Your task to perform on an android device: Search for good Indian restaurants Image 0: 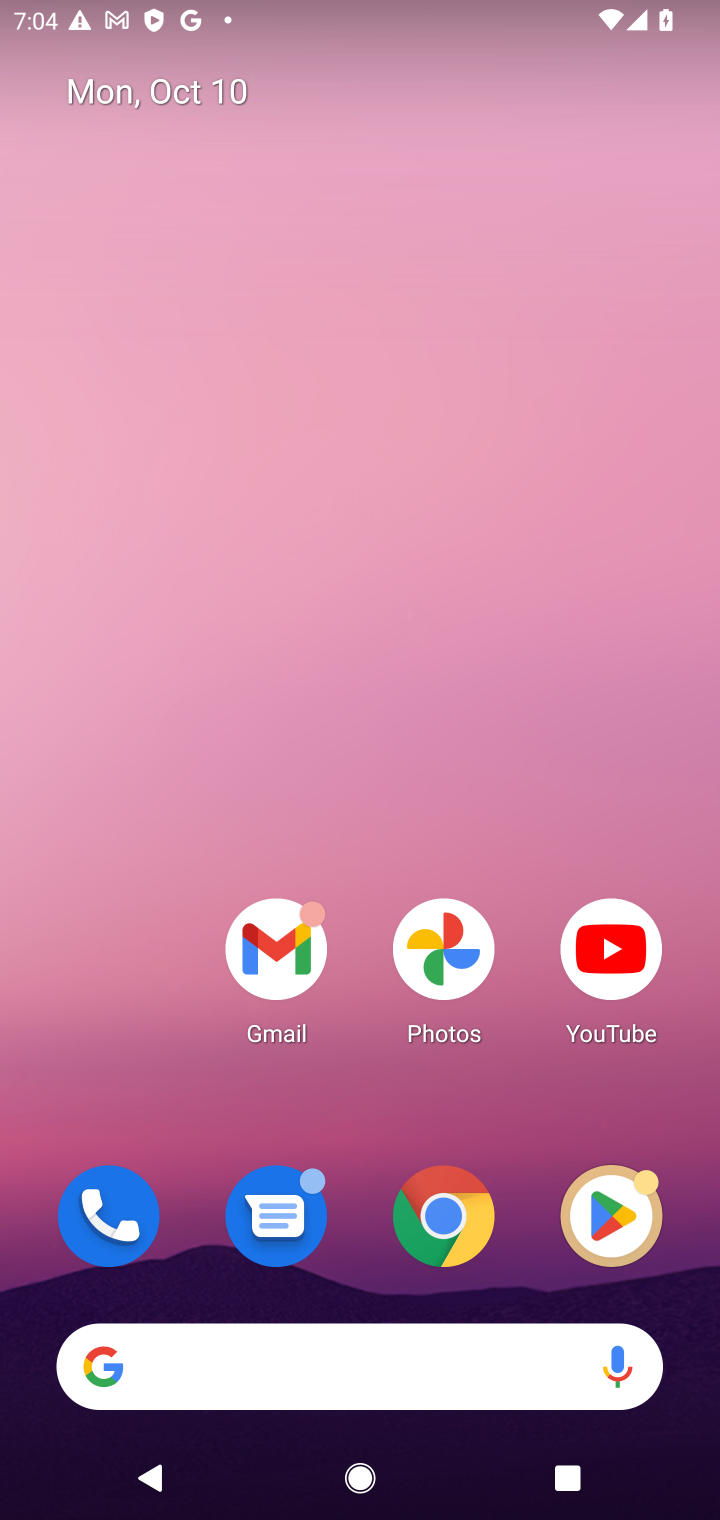
Step 0: drag from (318, 1340) to (348, 308)
Your task to perform on an android device: Search for good Indian restaurants Image 1: 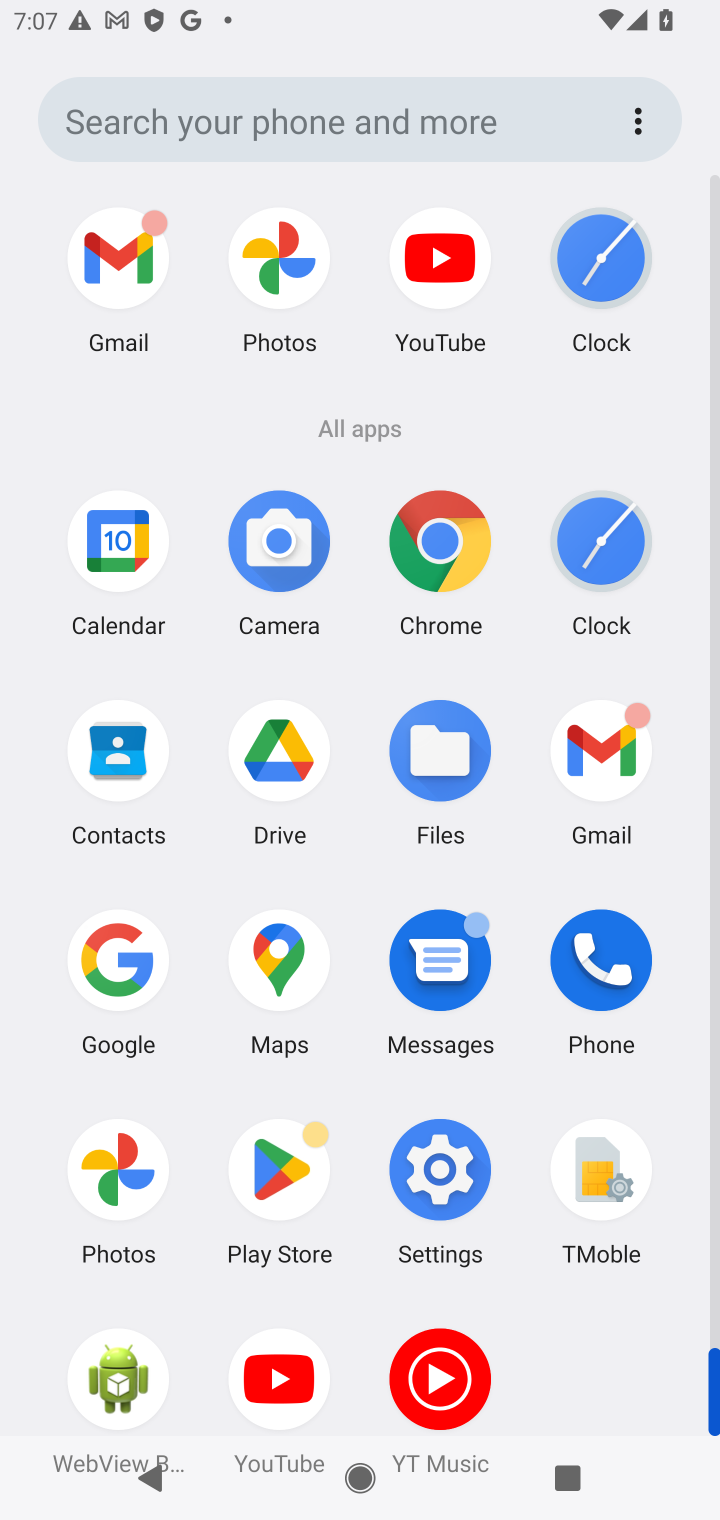
Step 1: click (96, 961)
Your task to perform on an android device: Search for good Indian restaurants Image 2: 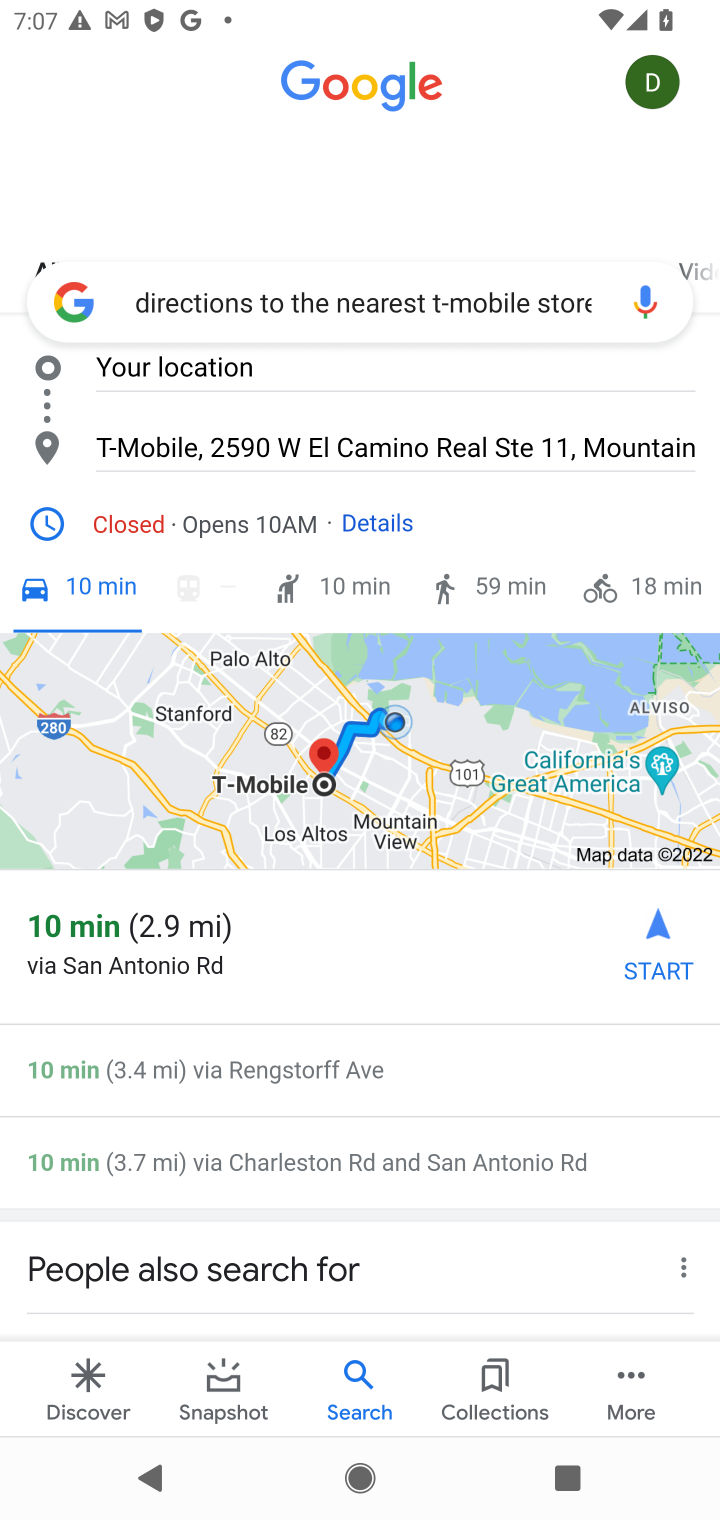
Step 2: click (290, 307)
Your task to perform on an android device: Search for good Indian restaurants Image 3: 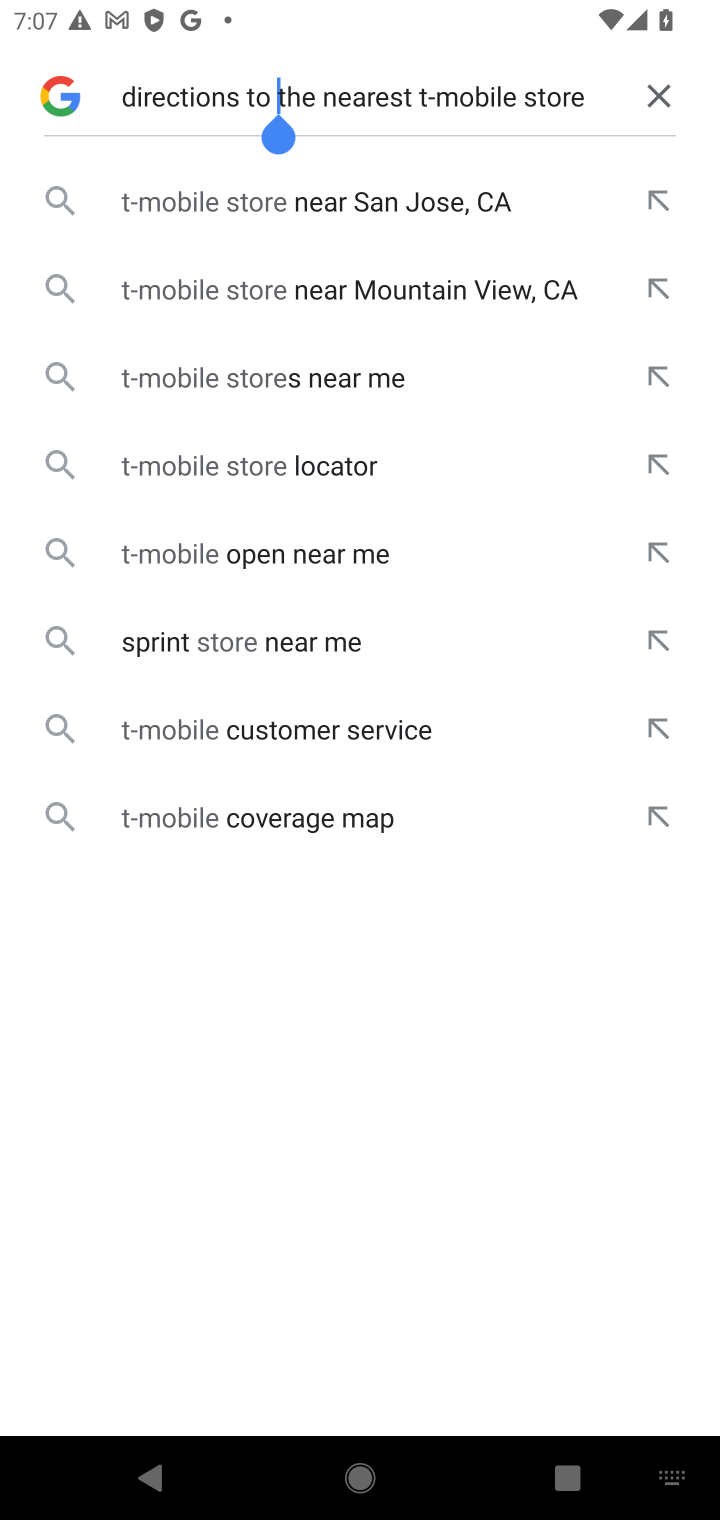
Step 3: click (658, 101)
Your task to perform on an android device: Search for good Indian restaurants Image 4: 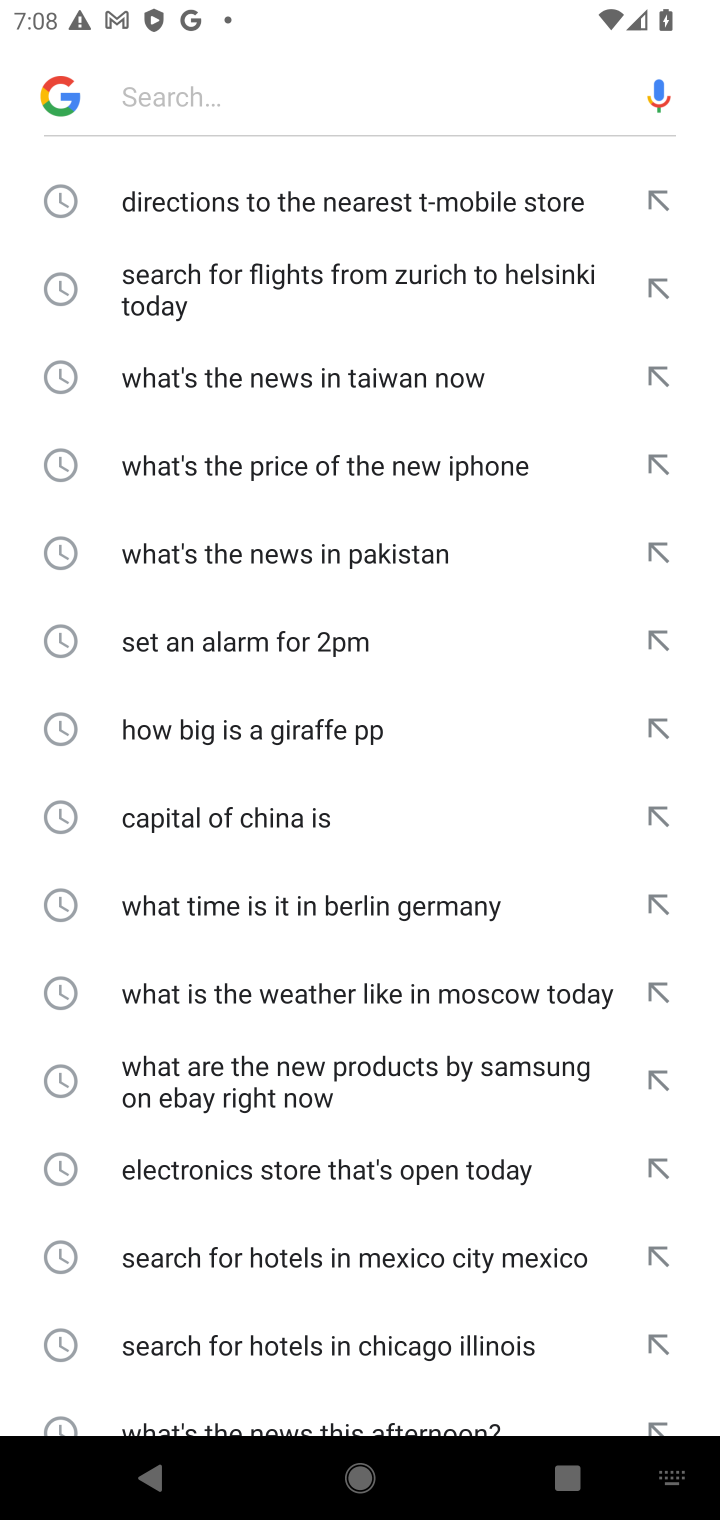
Step 4: type "Search for good Indian restaurants"
Your task to perform on an android device: Search for good Indian restaurants Image 5: 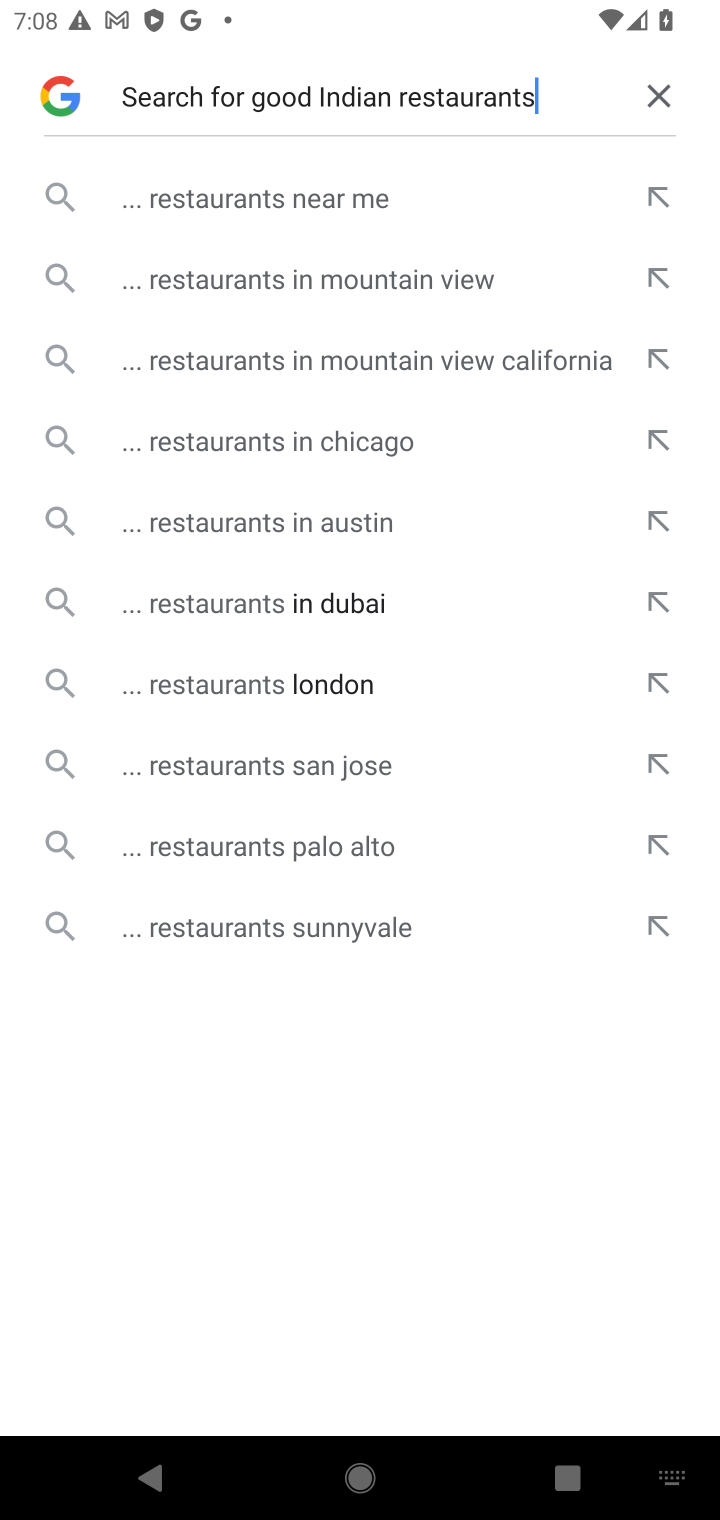
Step 5: click (248, 200)
Your task to perform on an android device: Search for good Indian restaurants Image 6: 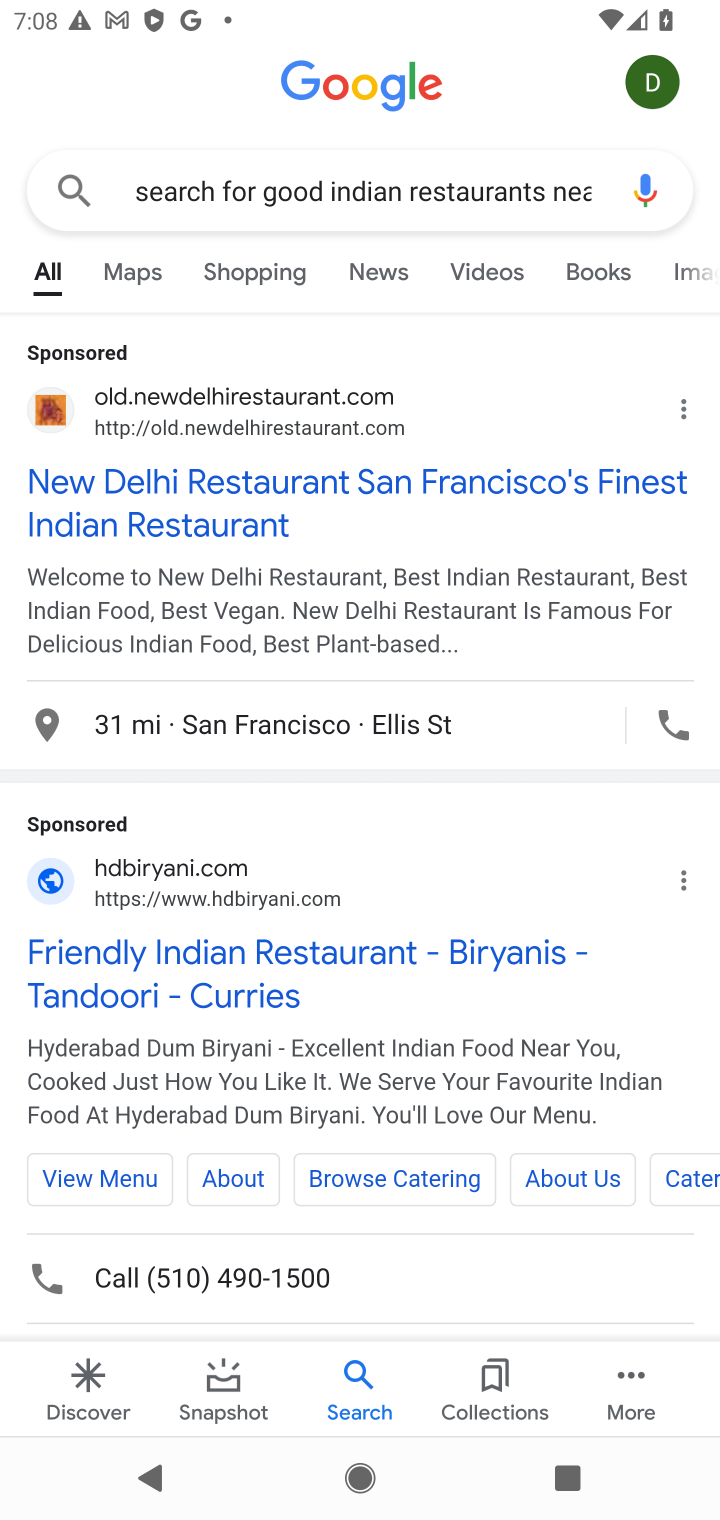
Step 6: click (314, 538)
Your task to perform on an android device: Search for good Indian restaurants Image 7: 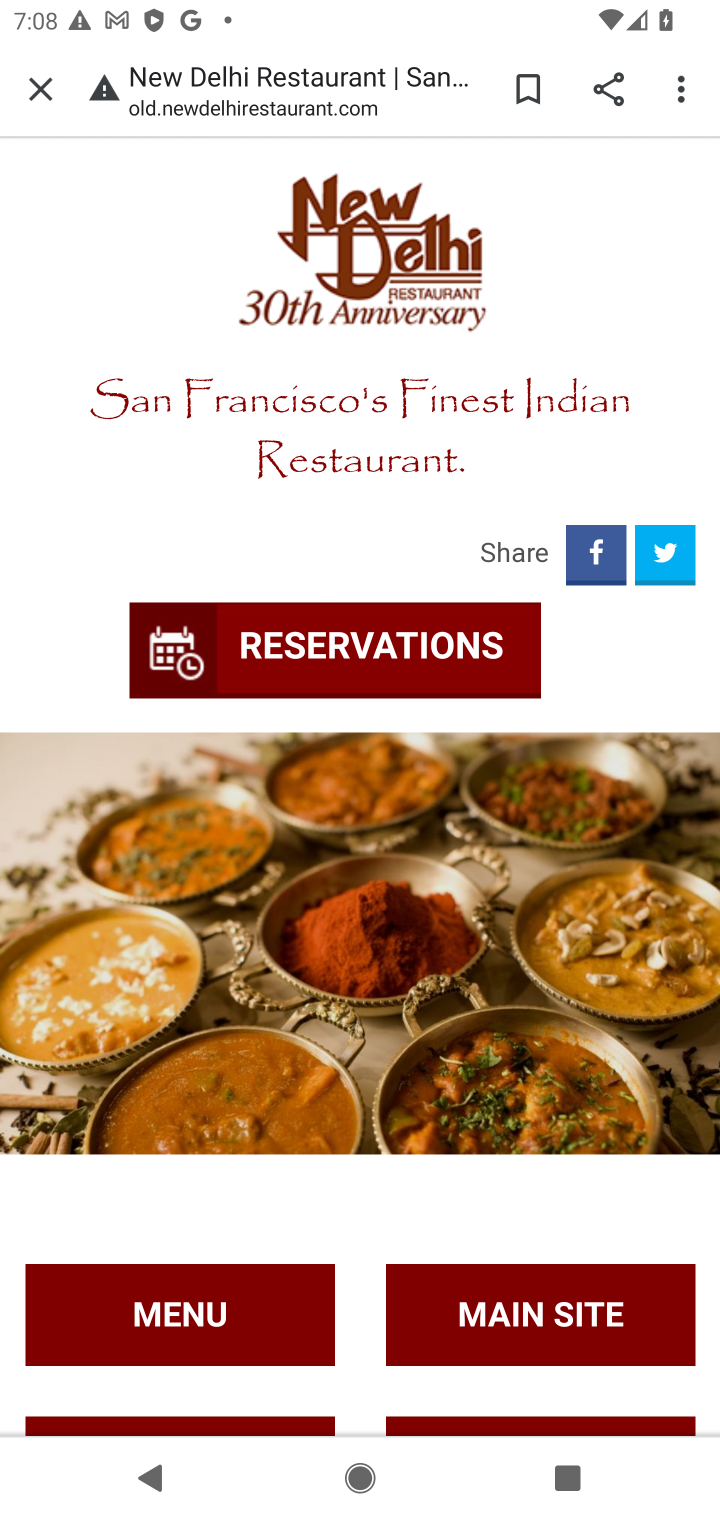
Step 7: task complete